Your task to perform on an android device: Open internet settings Image 0: 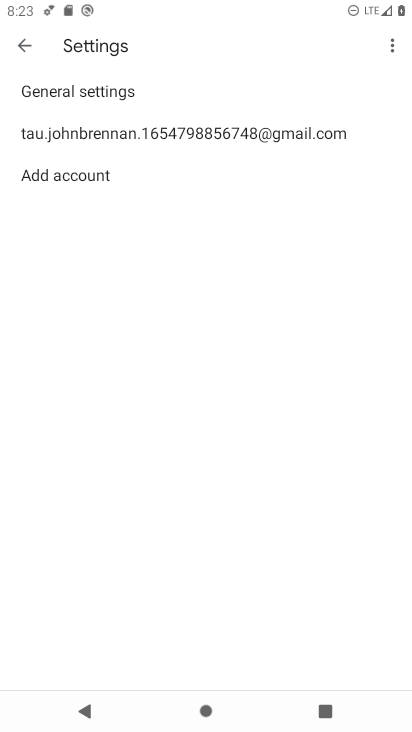
Step 0: drag from (255, 607) to (233, 192)
Your task to perform on an android device: Open internet settings Image 1: 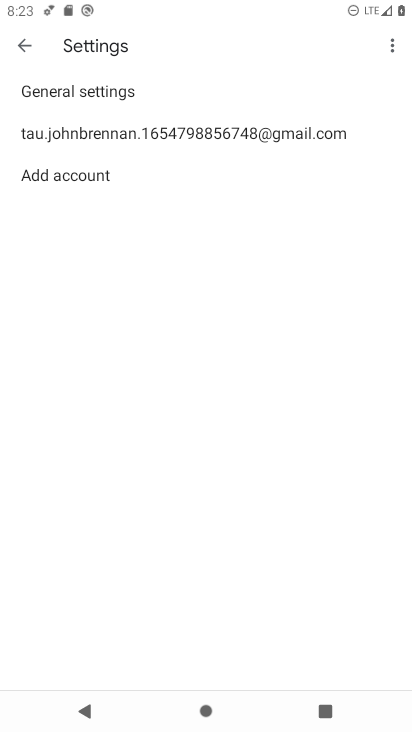
Step 1: press home button
Your task to perform on an android device: Open internet settings Image 2: 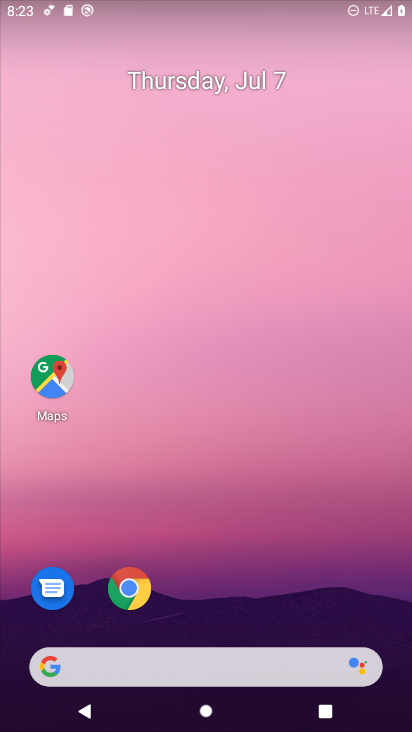
Step 2: drag from (291, 612) to (285, 229)
Your task to perform on an android device: Open internet settings Image 3: 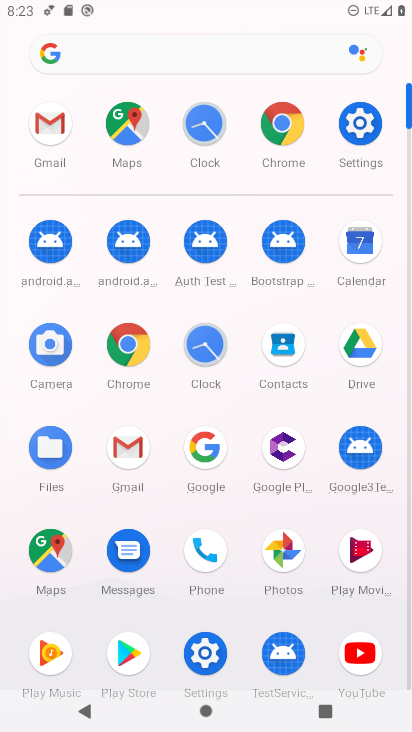
Step 3: click (348, 116)
Your task to perform on an android device: Open internet settings Image 4: 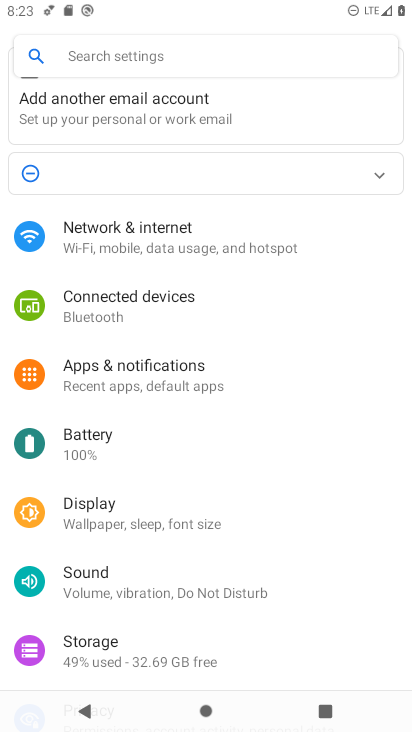
Step 4: click (156, 232)
Your task to perform on an android device: Open internet settings Image 5: 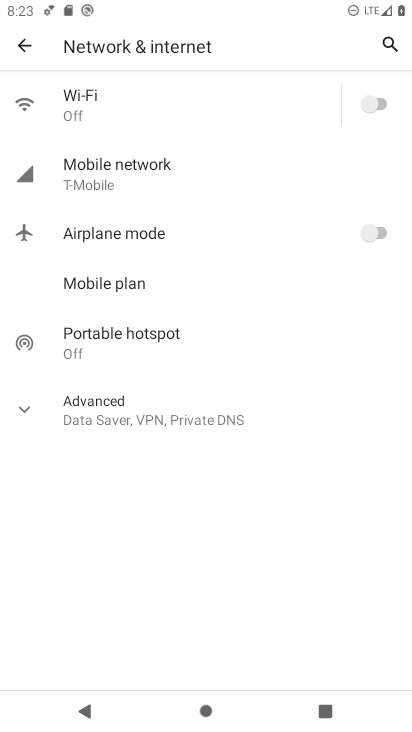
Step 5: task complete